Your task to perform on an android device: Open battery settings Image 0: 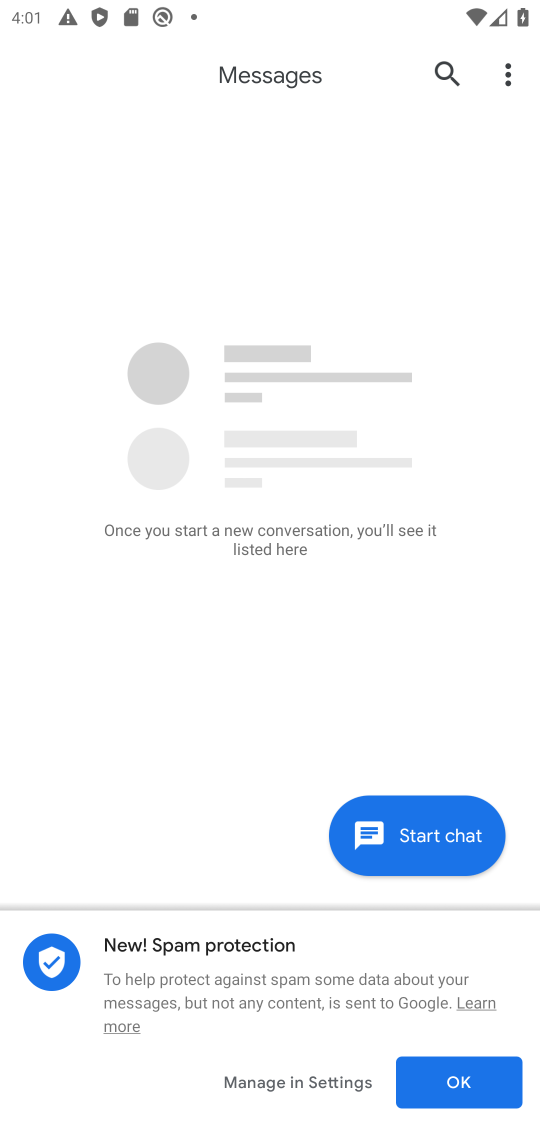
Step 0: press home button
Your task to perform on an android device: Open battery settings Image 1: 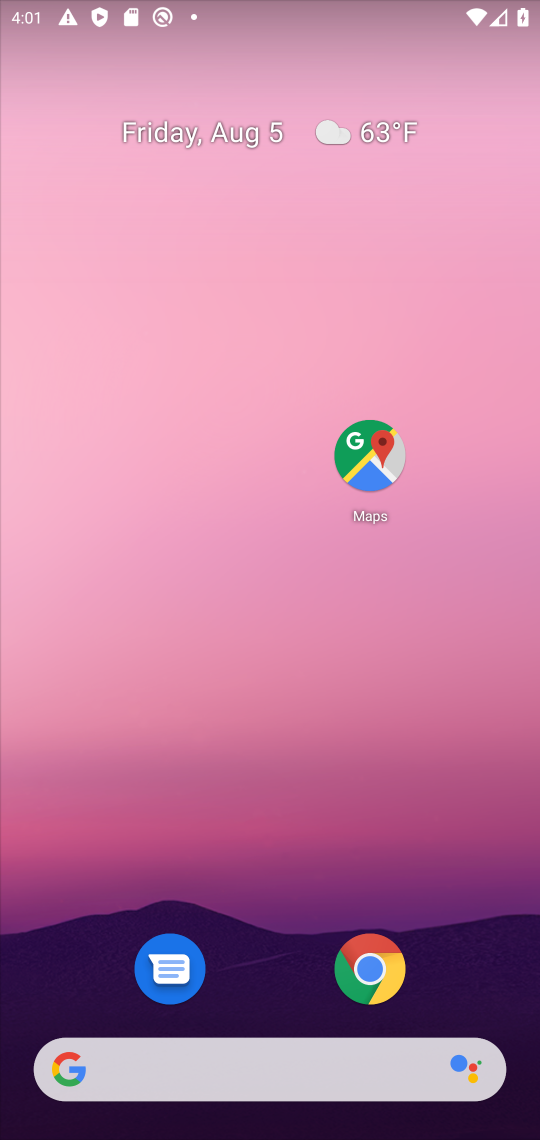
Step 1: drag from (371, 881) to (321, 133)
Your task to perform on an android device: Open battery settings Image 2: 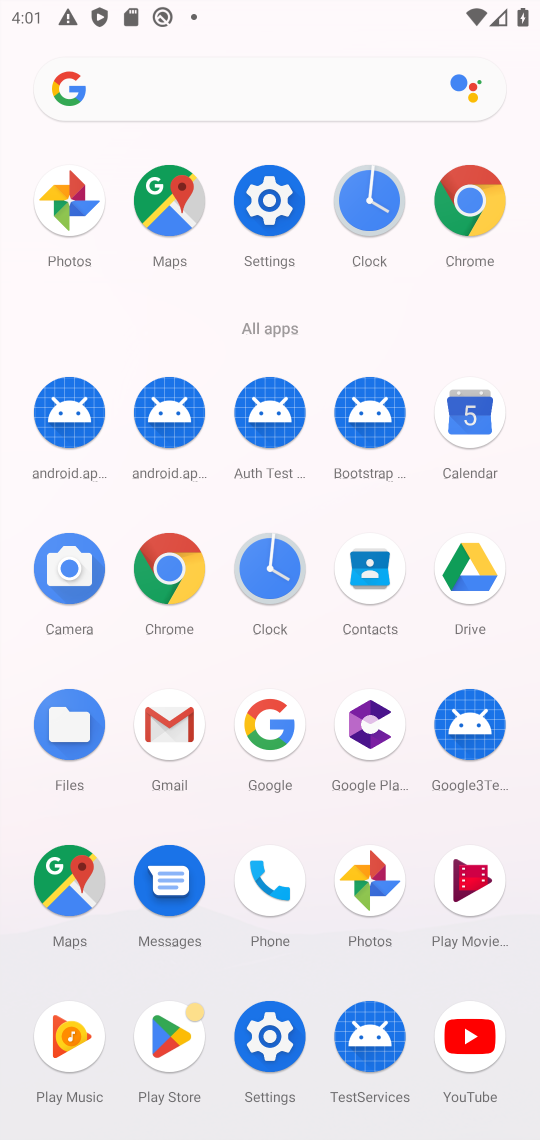
Step 2: click (284, 219)
Your task to perform on an android device: Open battery settings Image 3: 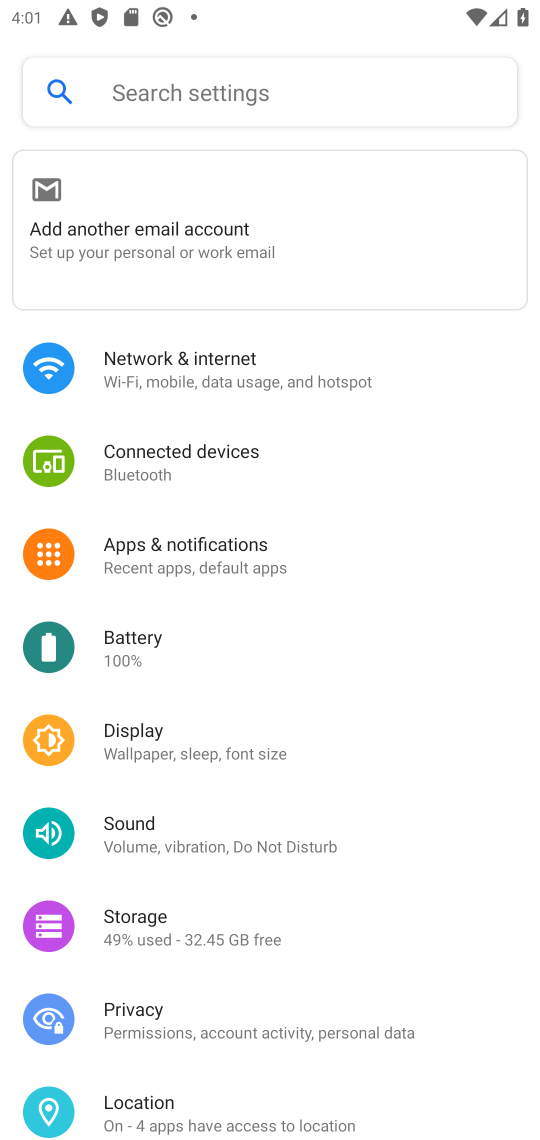
Step 3: drag from (216, 902) to (229, 533)
Your task to perform on an android device: Open battery settings Image 4: 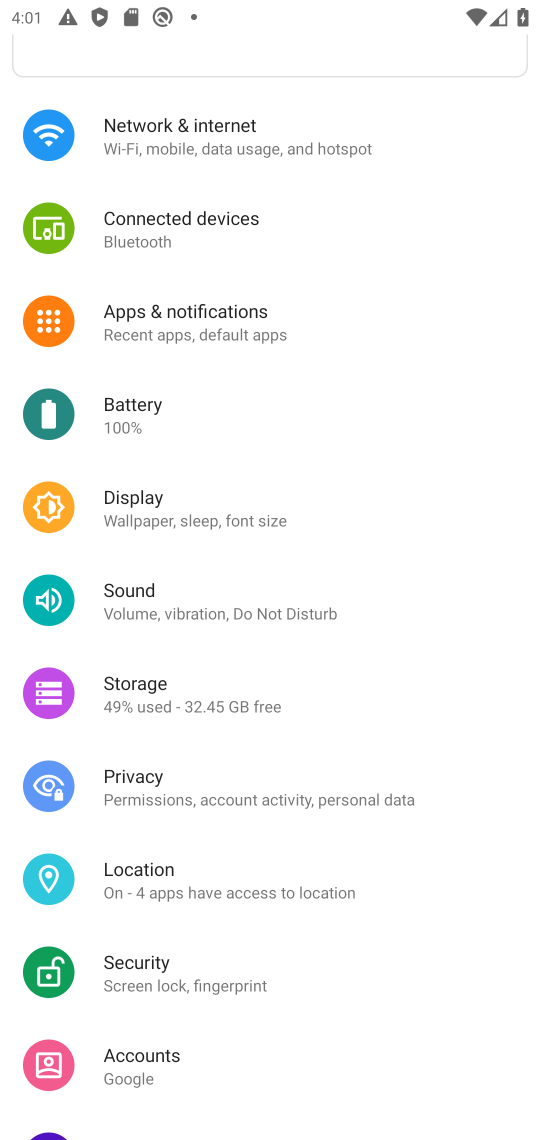
Step 4: click (166, 425)
Your task to perform on an android device: Open battery settings Image 5: 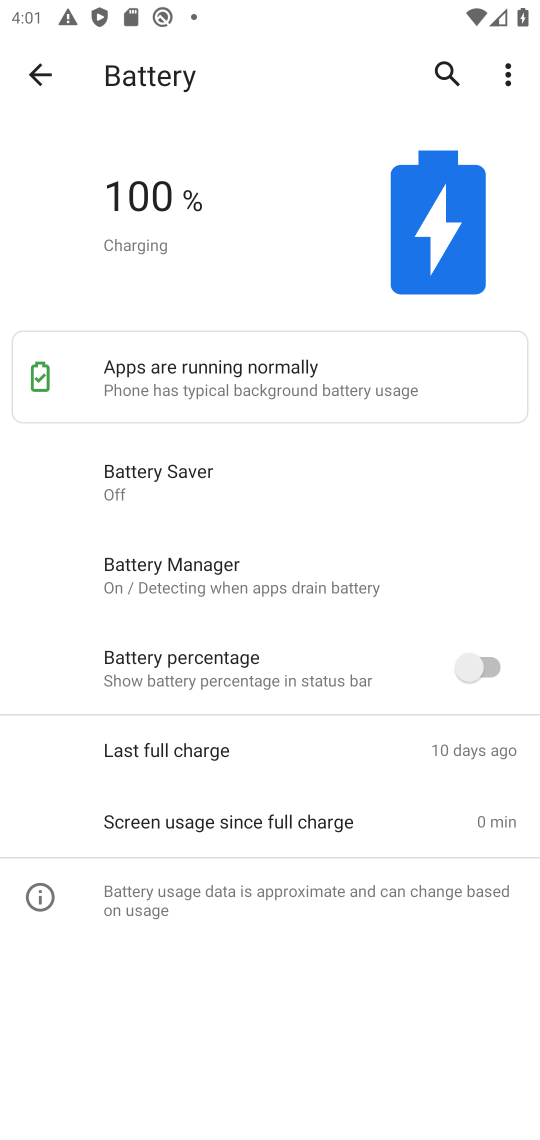
Step 5: task complete